Your task to perform on an android device: Go to Reddit.com Image 0: 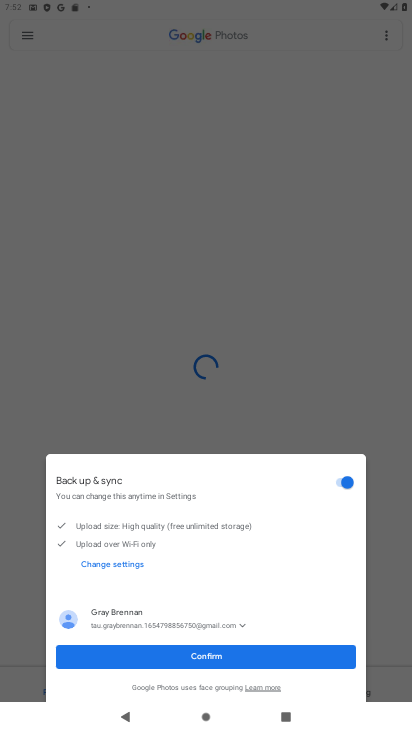
Step 0: press home button
Your task to perform on an android device: Go to Reddit.com Image 1: 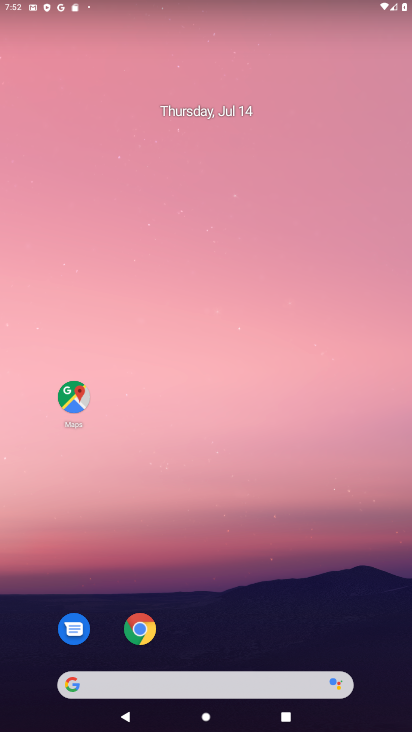
Step 1: click (142, 634)
Your task to perform on an android device: Go to Reddit.com Image 2: 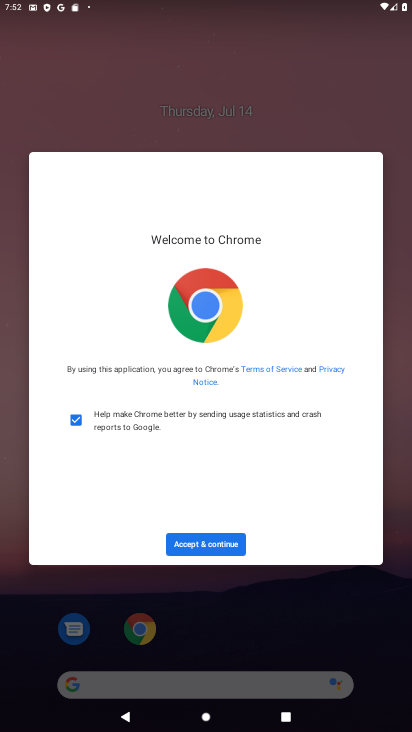
Step 2: click (224, 532)
Your task to perform on an android device: Go to Reddit.com Image 3: 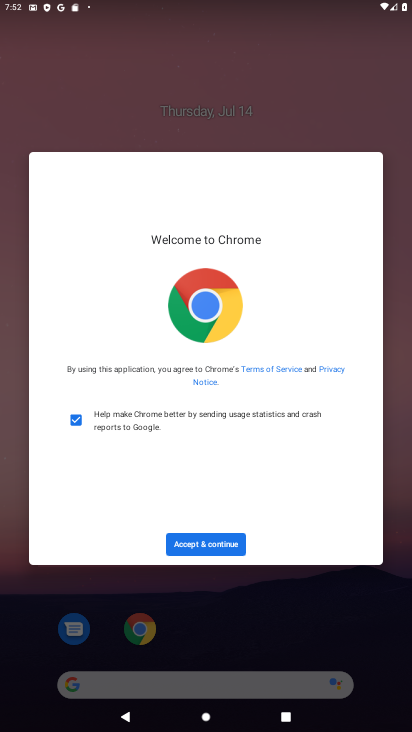
Step 3: click (224, 532)
Your task to perform on an android device: Go to Reddit.com Image 4: 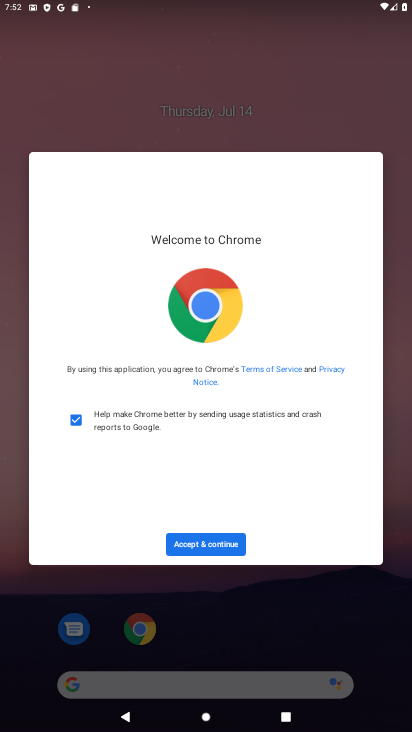
Step 4: click (217, 552)
Your task to perform on an android device: Go to Reddit.com Image 5: 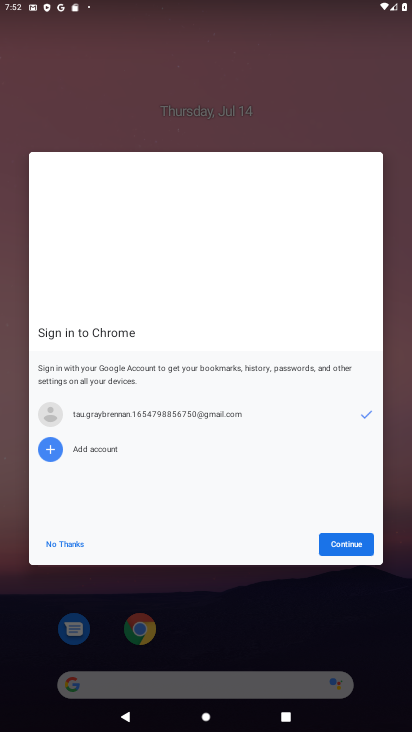
Step 5: click (333, 545)
Your task to perform on an android device: Go to Reddit.com Image 6: 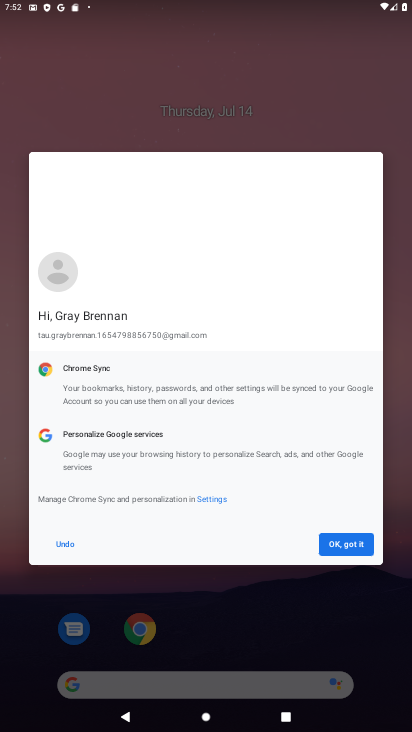
Step 6: click (333, 545)
Your task to perform on an android device: Go to Reddit.com Image 7: 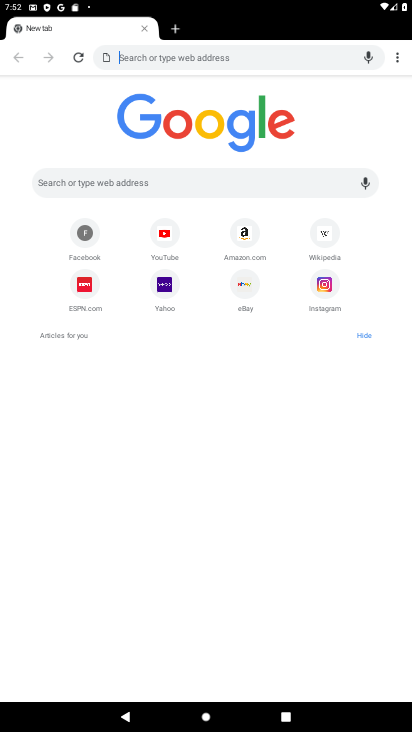
Step 7: click (267, 181)
Your task to perform on an android device: Go to Reddit.com Image 8: 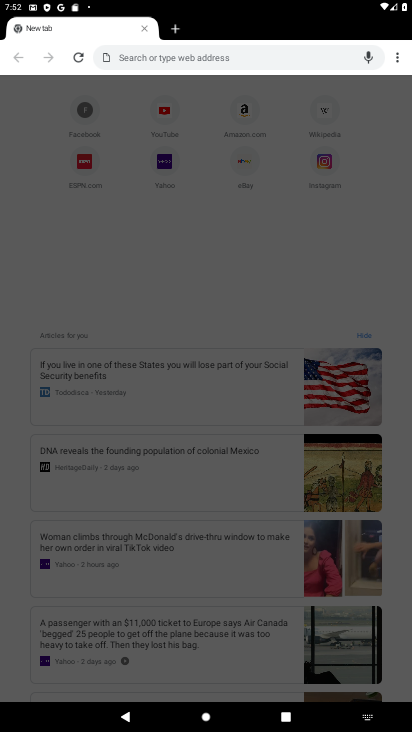
Step 8: type "Reddit.com"
Your task to perform on an android device: Go to Reddit.com Image 9: 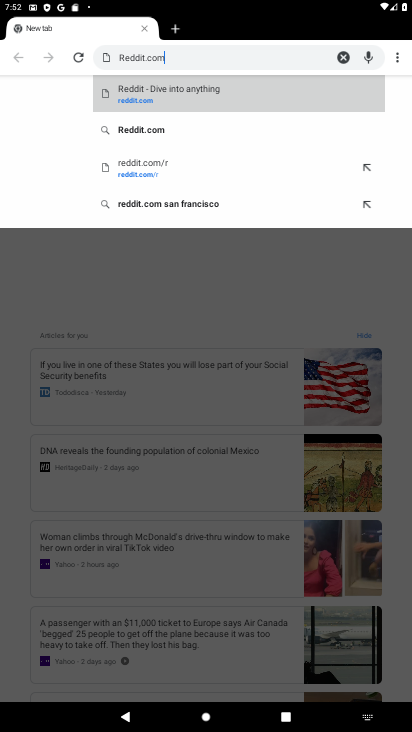
Step 9: click (255, 107)
Your task to perform on an android device: Go to Reddit.com Image 10: 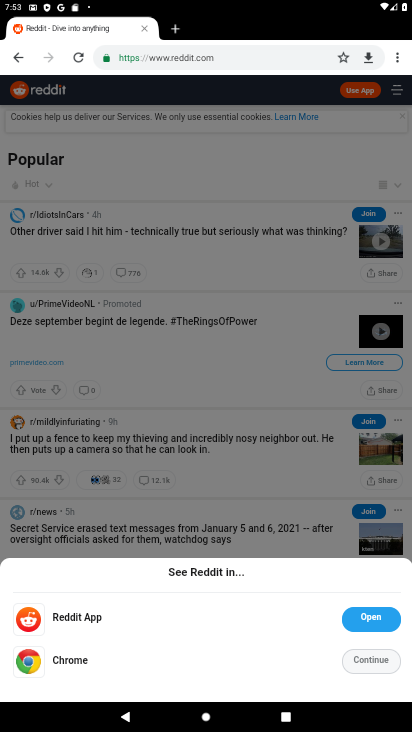
Step 10: task complete